Your task to perform on an android device: Open Youtube and go to the subscriptions tab Image 0: 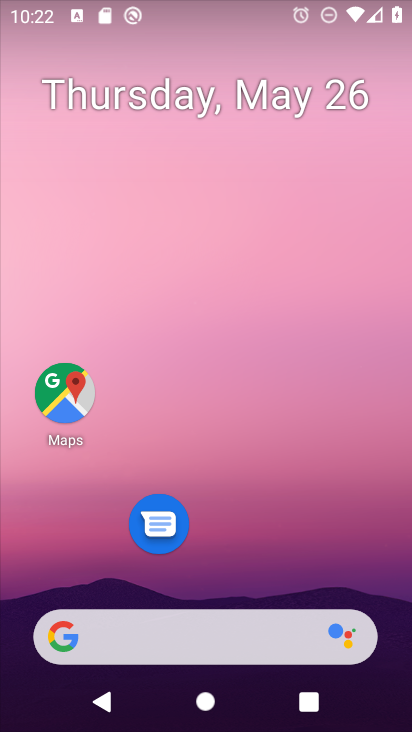
Step 0: drag from (267, 565) to (258, 14)
Your task to perform on an android device: Open Youtube and go to the subscriptions tab Image 1: 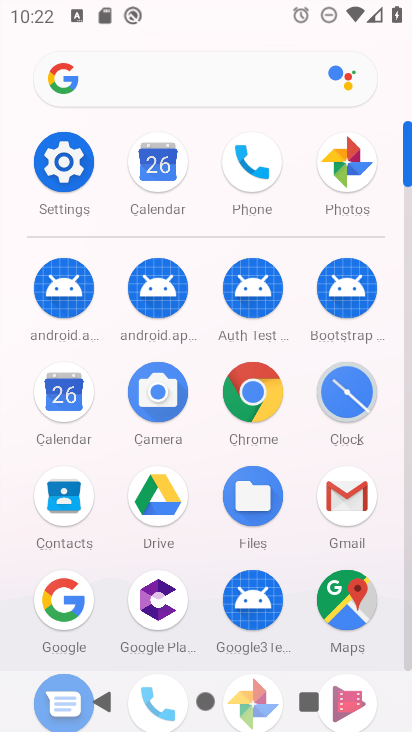
Step 1: drag from (227, 427) to (204, 78)
Your task to perform on an android device: Open Youtube and go to the subscriptions tab Image 2: 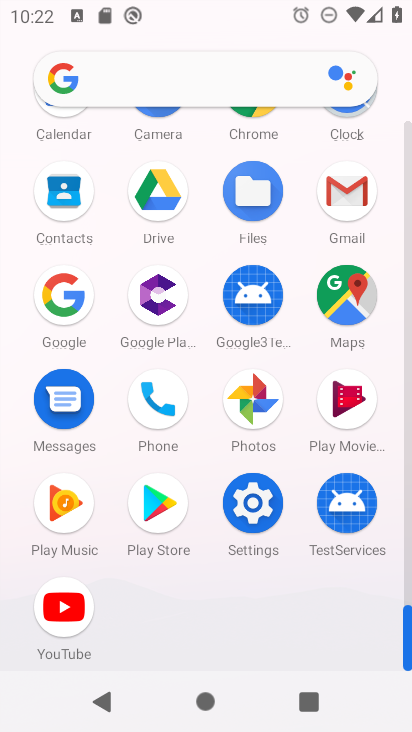
Step 2: click (46, 606)
Your task to perform on an android device: Open Youtube and go to the subscriptions tab Image 3: 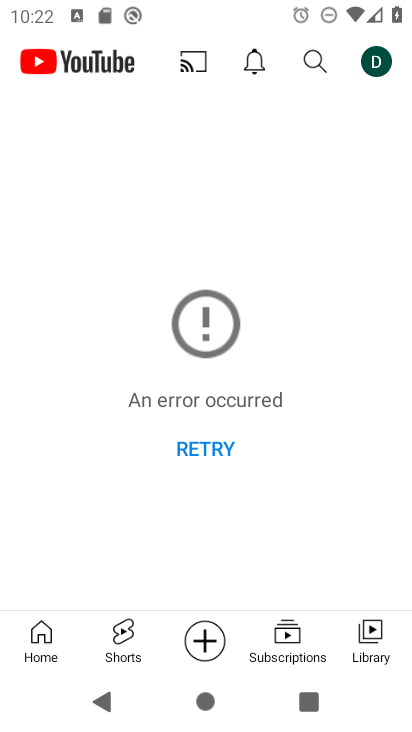
Step 3: click (294, 638)
Your task to perform on an android device: Open Youtube and go to the subscriptions tab Image 4: 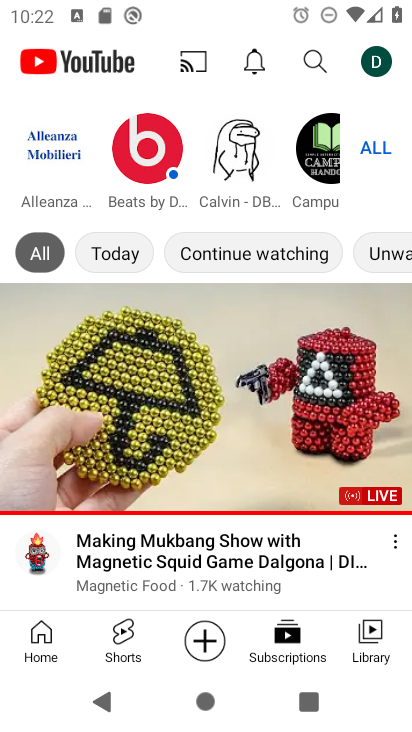
Step 4: task complete